Your task to perform on an android device: turn off location history Image 0: 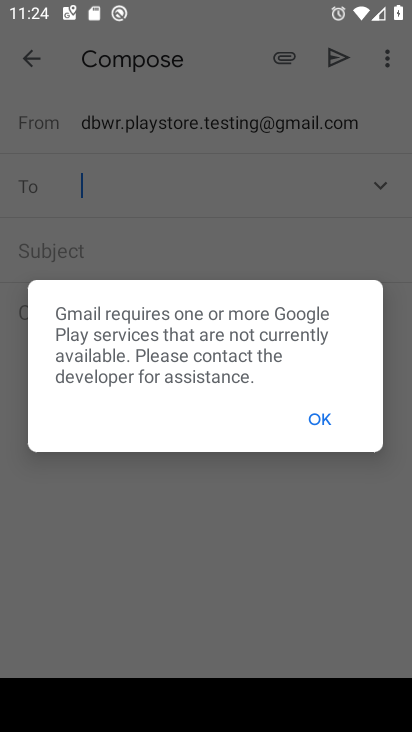
Step 0: press home button
Your task to perform on an android device: turn off location history Image 1: 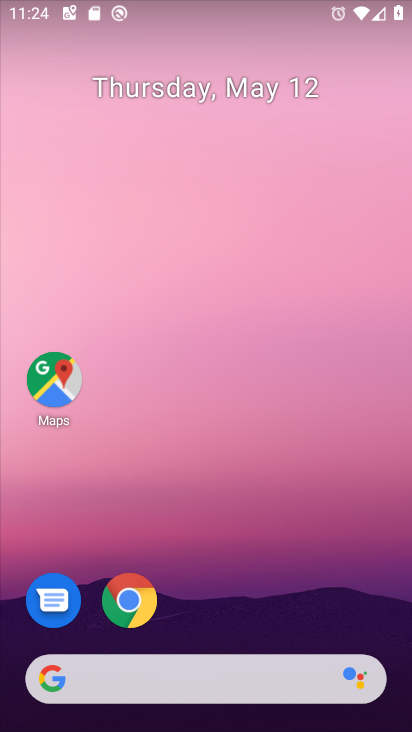
Step 1: drag from (212, 573) to (188, 195)
Your task to perform on an android device: turn off location history Image 2: 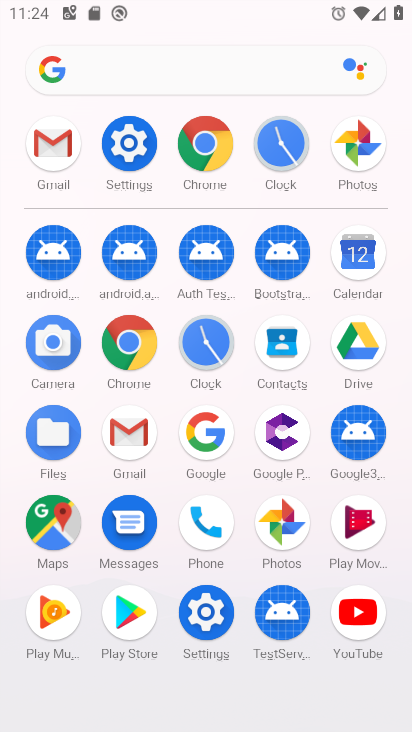
Step 2: click (130, 147)
Your task to perform on an android device: turn off location history Image 3: 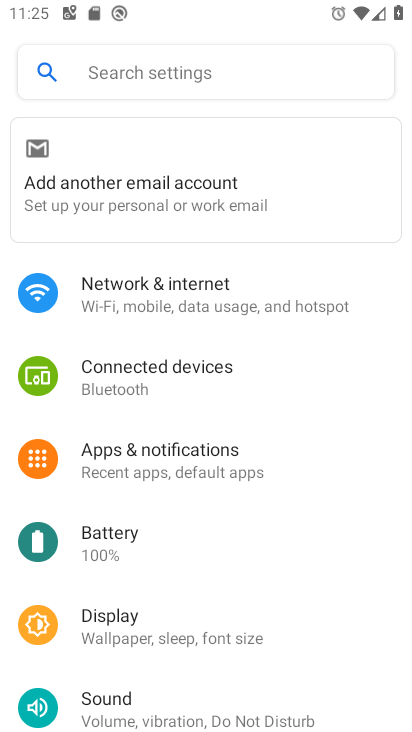
Step 3: drag from (175, 649) to (193, 257)
Your task to perform on an android device: turn off location history Image 4: 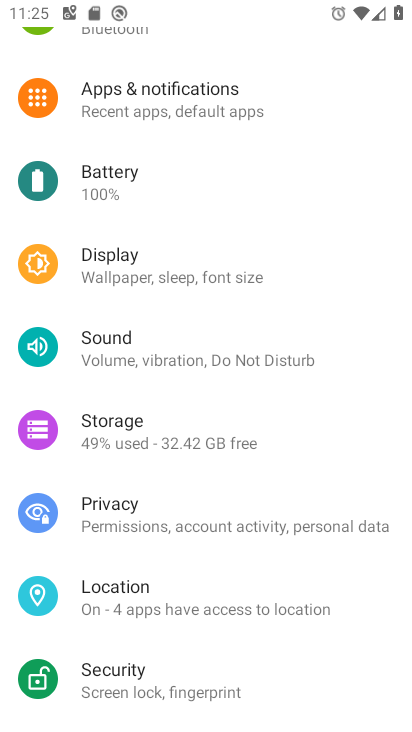
Step 4: click (139, 593)
Your task to perform on an android device: turn off location history Image 5: 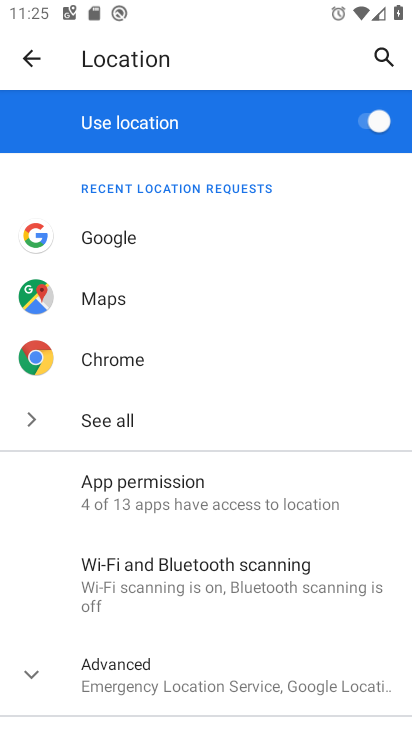
Step 5: click (147, 686)
Your task to perform on an android device: turn off location history Image 6: 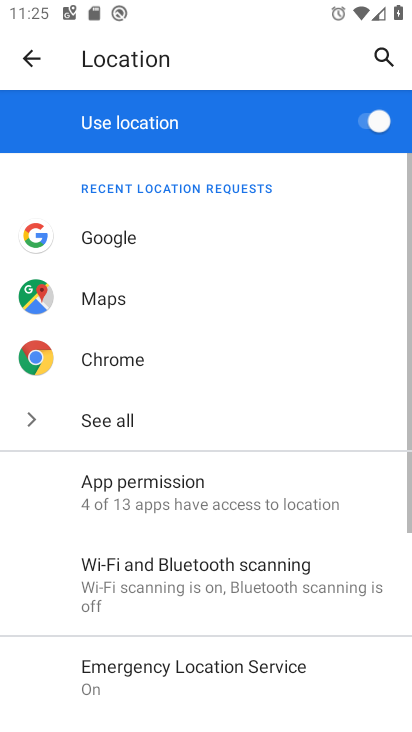
Step 6: drag from (149, 684) to (173, 418)
Your task to perform on an android device: turn off location history Image 7: 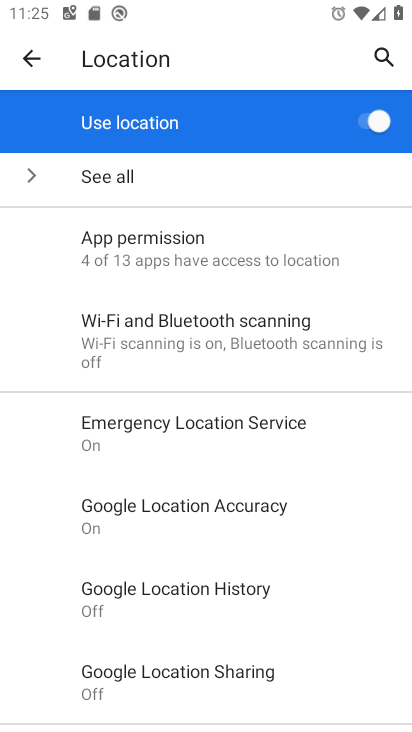
Step 7: click (134, 591)
Your task to perform on an android device: turn off location history Image 8: 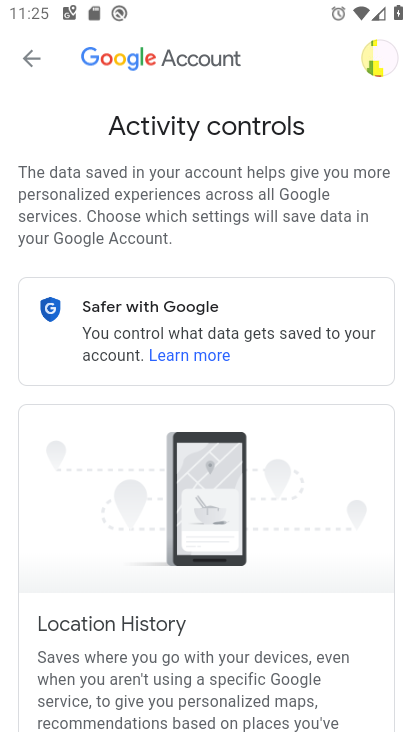
Step 8: task complete